Your task to perform on an android device: empty trash in google photos Image 0: 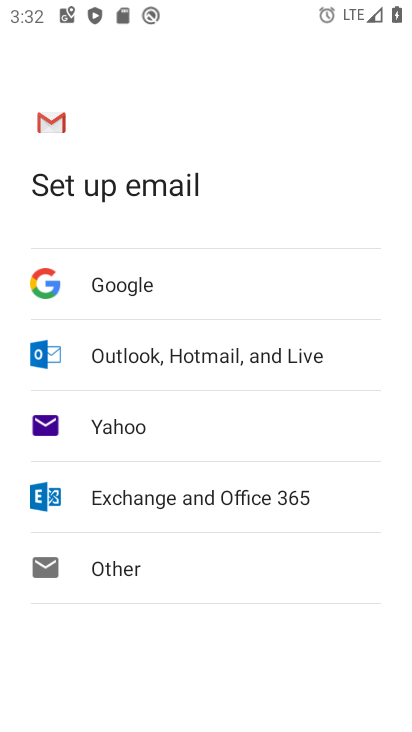
Step 0: press home button
Your task to perform on an android device: empty trash in google photos Image 1: 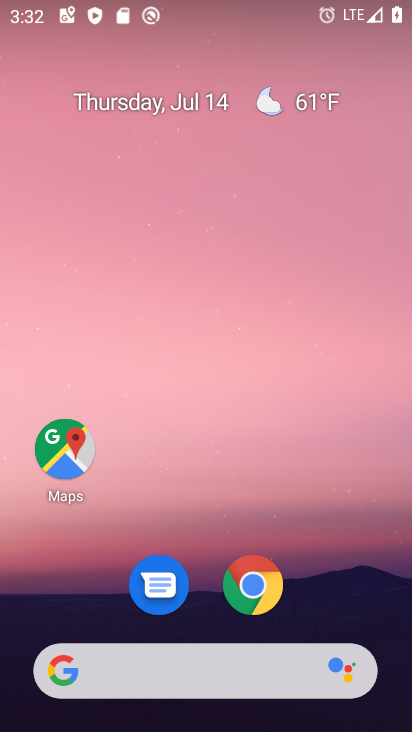
Step 1: drag from (317, 560) to (280, 66)
Your task to perform on an android device: empty trash in google photos Image 2: 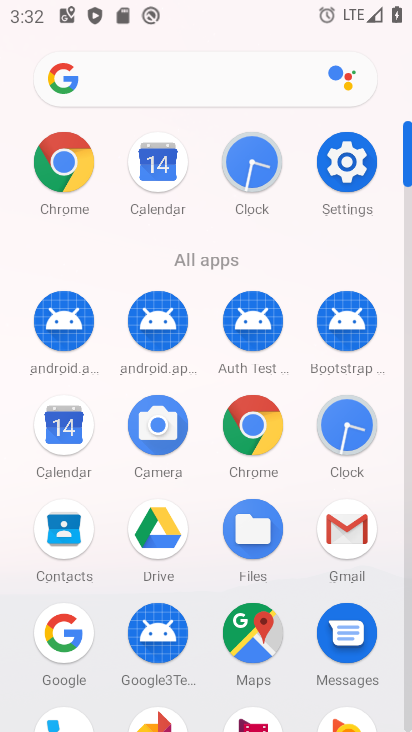
Step 2: drag from (299, 561) to (285, 227)
Your task to perform on an android device: empty trash in google photos Image 3: 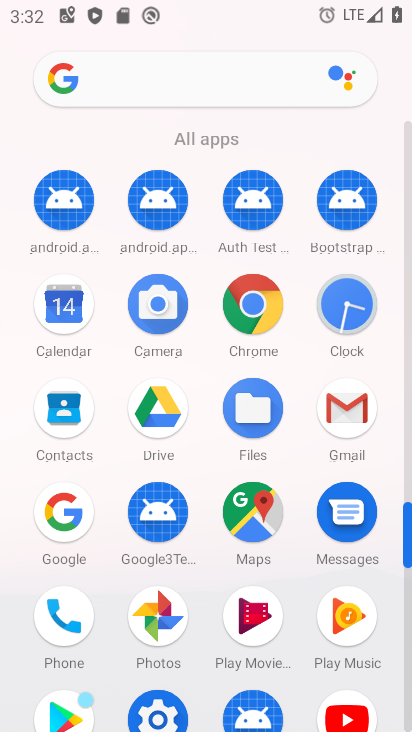
Step 3: click (160, 600)
Your task to perform on an android device: empty trash in google photos Image 4: 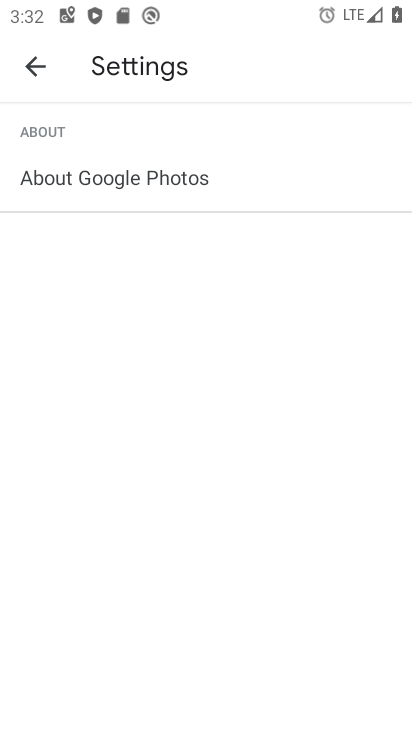
Step 4: click (39, 65)
Your task to perform on an android device: empty trash in google photos Image 5: 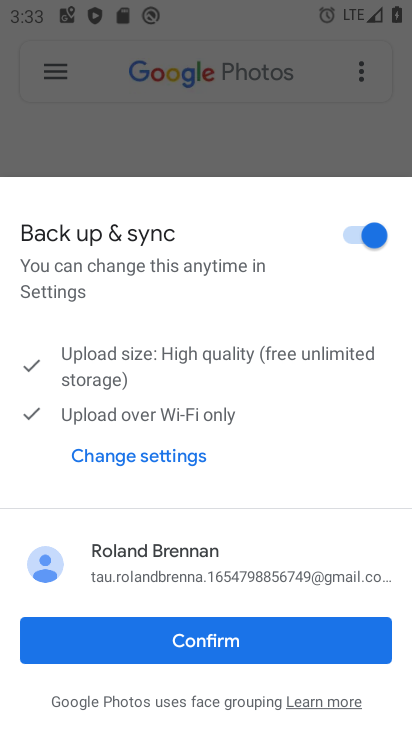
Step 5: click (193, 648)
Your task to perform on an android device: empty trash in google photos Image 6: 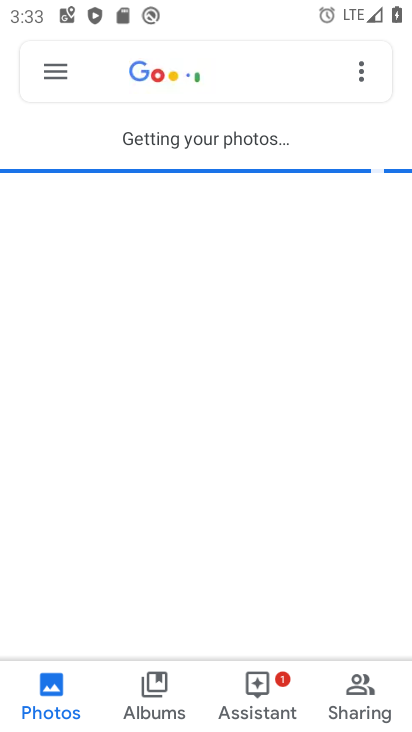
Step 6: click (53, 66)
Your task to perform on an android device: empty trash in google photos Image 7: 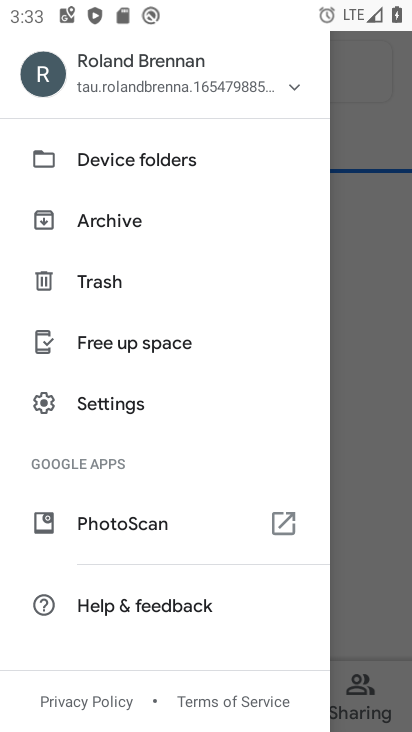
Step 7: click (111, 278)
Your task to perform on an android device: empty trash in google photos Image 8: 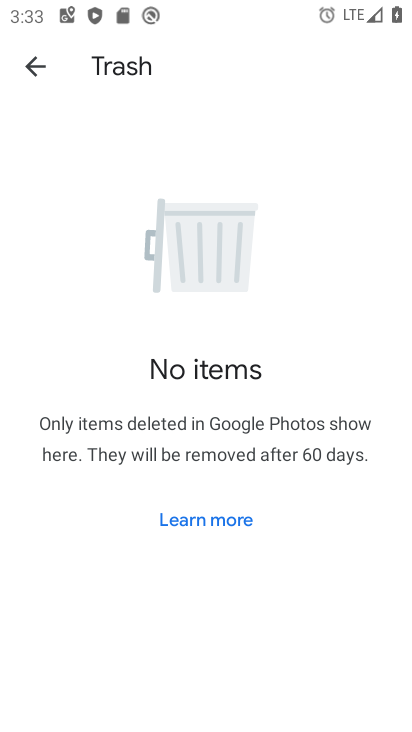
Step 8: task complete